Your task to perform on an android device: find snoozed emails in the gmail app Image 0: 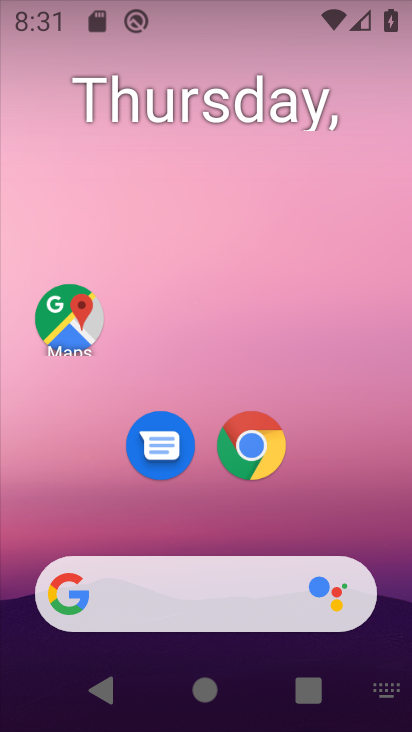
Step 0: drag from (346, 486) to (180, 101)
Your task to perform on an android device: find snoozed emails in the gmail app Image 1: 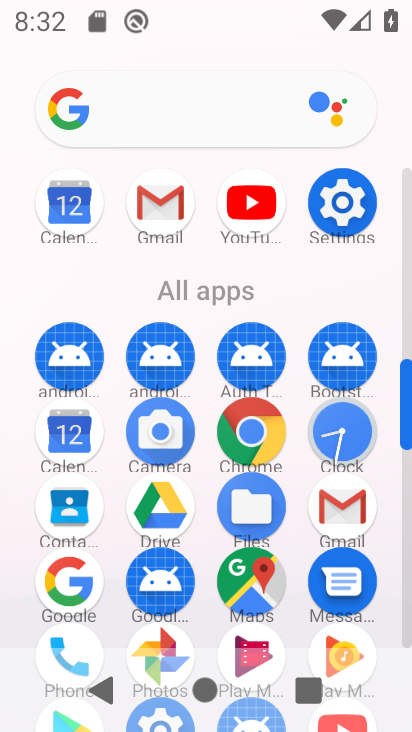
Step 1: click (152, 199)
Your task to perform on an android device: find snoozed emails in the gmail app Image 2: 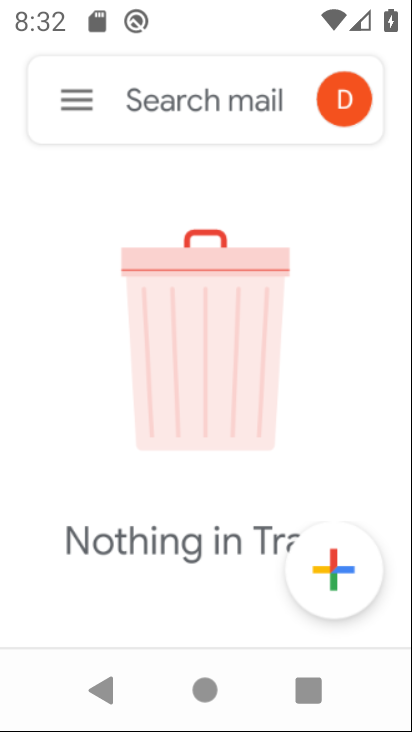
Step 2: click (81, 104)
Your task to perform on an android device: find snoozed emails in the gmail app Image 3: 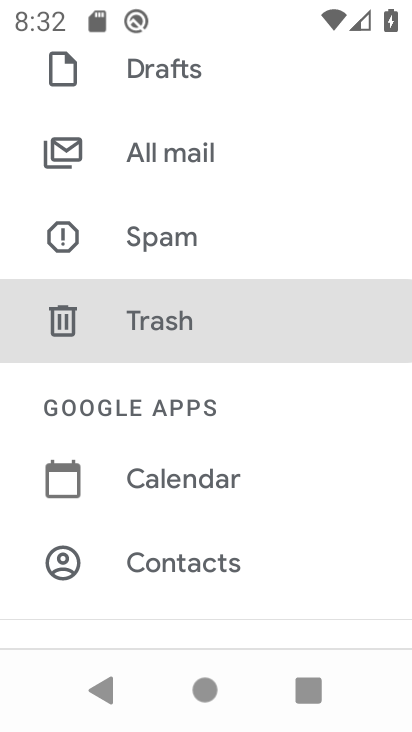
Step 3: drag from (303, 128) to (242, 564)
Your task to perform on an android device: find snoozed emails in the gmail app Image 4: 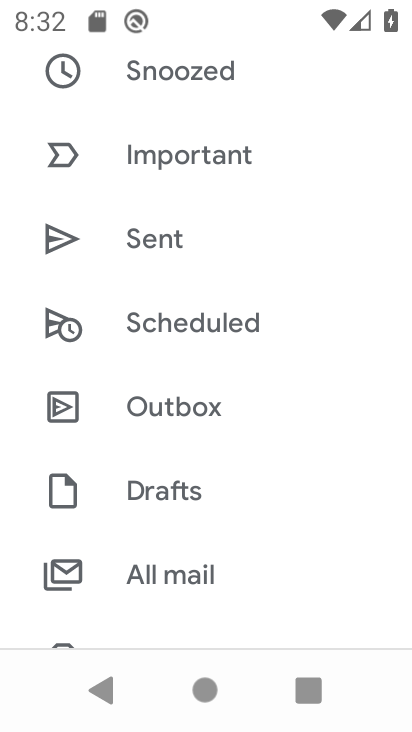
Step 4: click (178, 77)
Your task to perform on an android device: find snoozed emails in the gmail app Image 5: 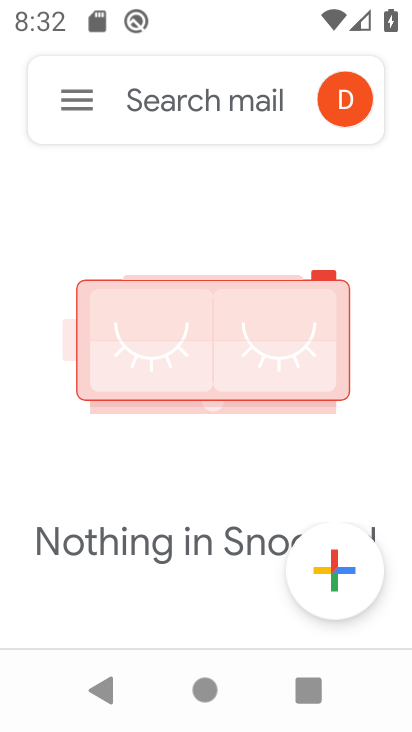
Step 5: task complete